Your task to perform on an android device: remove spam from my inbox in the gmail app Image 0: 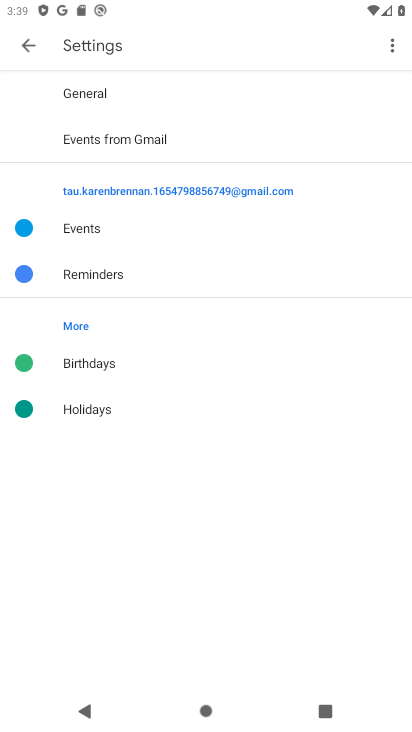
Step 0: press home button
Your task to perform on an android device: remove spam from my inbox in the gmail app Image 1: 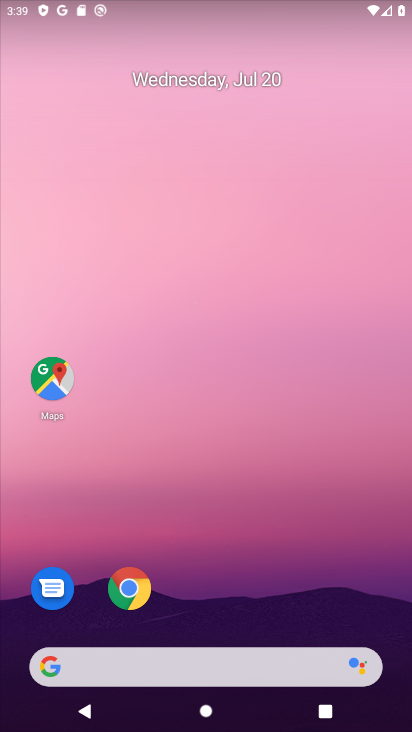
Step 1: drag from (176, 610) to (135, 81)
Your task to perform on an android device: remove spam from my inbox in the gmail app Image 2: 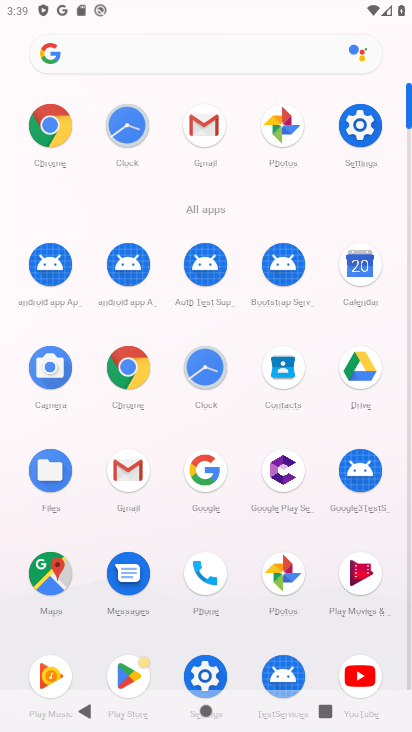
Step 2: click (207, 148)
Your task to perform on an android device: remove spam from my inbox in the gmail app Image 3: 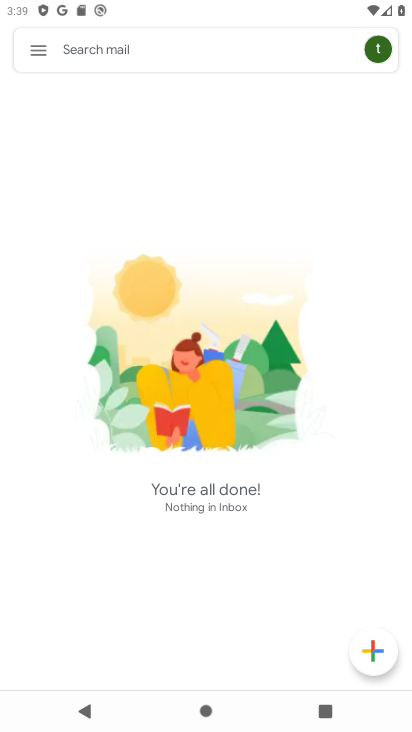
Step 3: click (24, 44)
Your task to perform on an android device: remove spam from my inbox in the gmail app Image 4: 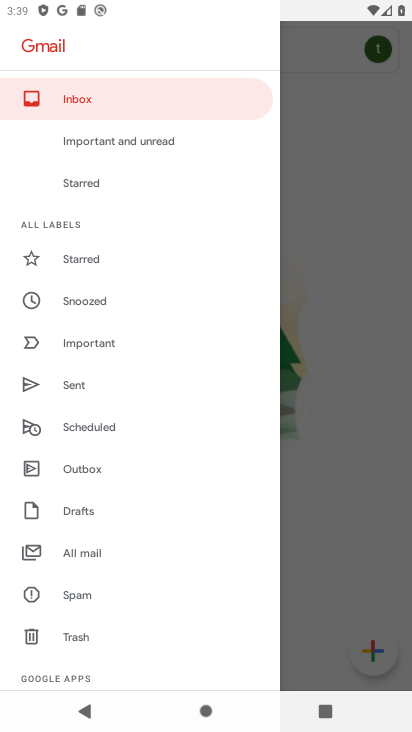
Step 4: click (110, 596)
Your task to perform on an android device: remove spam from my inbox in the gmail app Image 5: 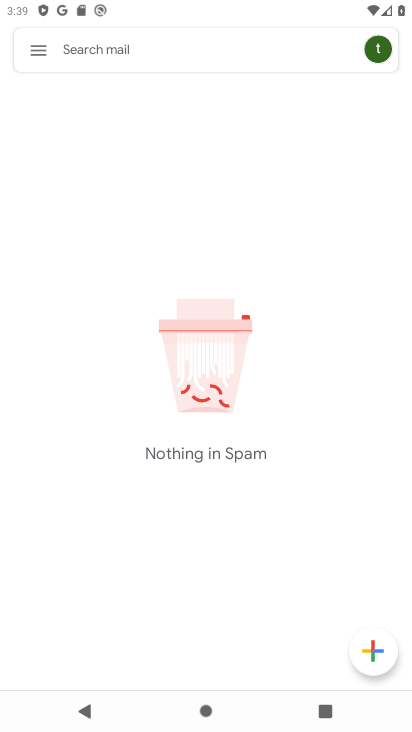
Step 5: task complete